Your task to perform on an android device: change notification settings in the gmail app Image 0: 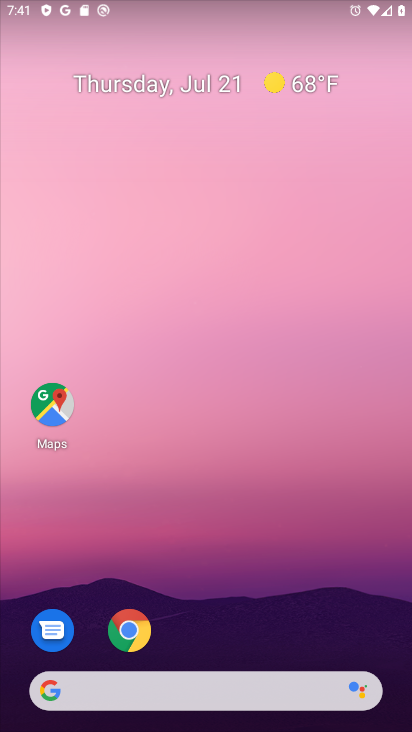
Step 0: drag from (271, 638) to (232, 77)
Your task to perform on an android device: change notification settings in the gmail app Image 1: 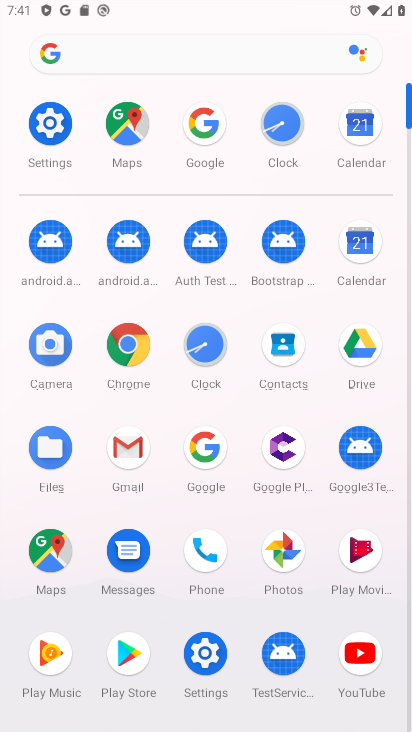
Step 1: click (120, 447)
Your task to perform on an android device: change notification settings in the gmail app Image 2: 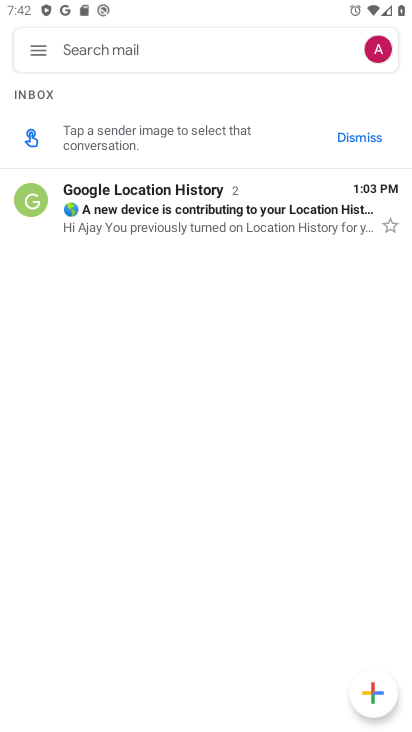
Step 2: click (29, 40)
Your task to perform on an android device: change notification settings in the gmail app Image 3: 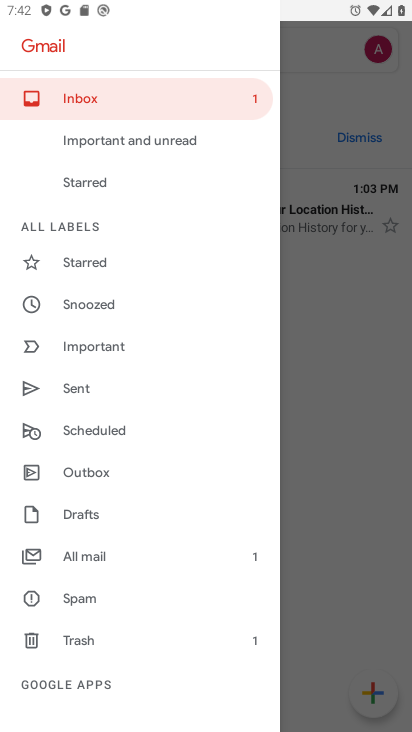
Step 3: drag from (120, 574) to (163, 129)
Your task to perform on an android device: change notification settings in the gmail app Image 4: 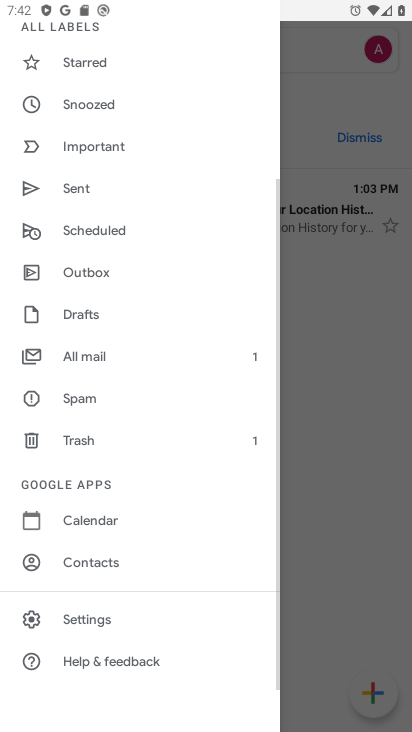
Step 4: click (95, 627)
Your task to perform on an android device: change notification settings in the gmail app Image 5: 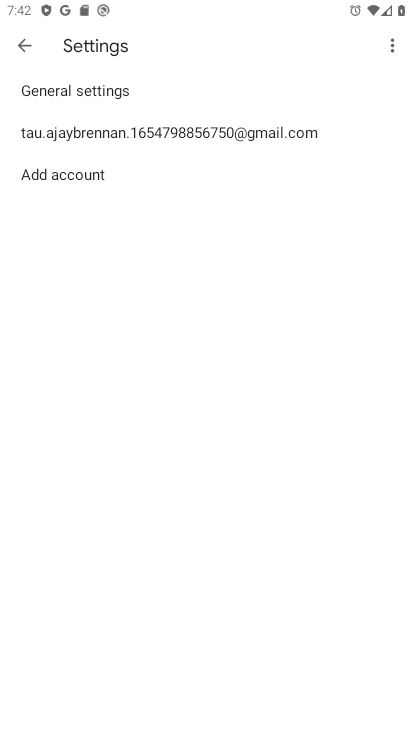
Step 5: click (115, 133)
Your task to perform on an android device: change notification settings in the gmail app Image 6: 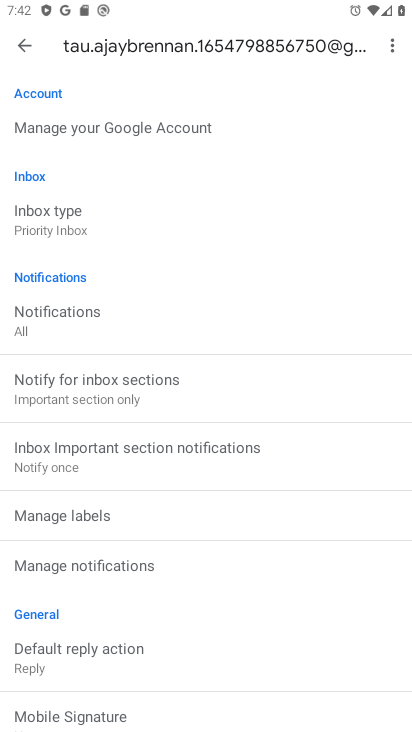
Step 6: click (39, 328)
Your task to perform on an android device: change notification settings in the gmail app Image 7: 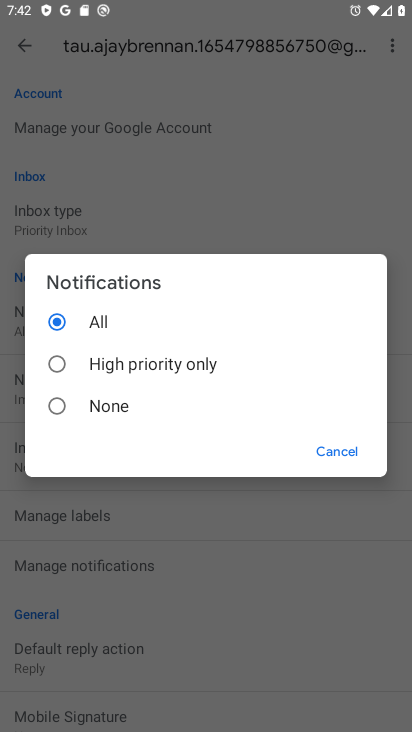
Step 7: click (67, 367)
Your task to perform on an android device: change notification settings in the gmail app Image 8: 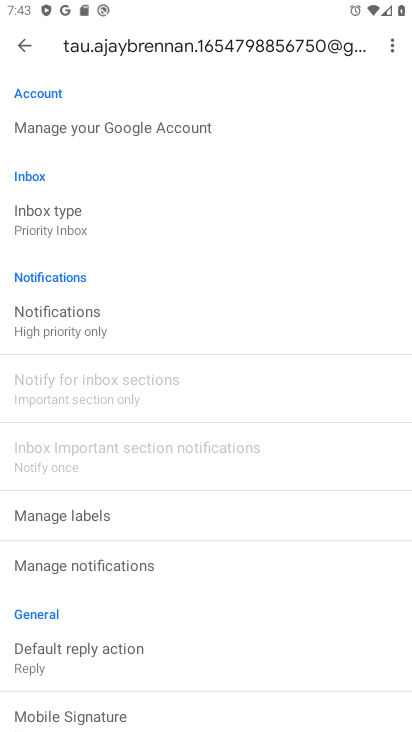
Step 8: task complete